Your task to perform on an android device: turn off wifi Image 0: 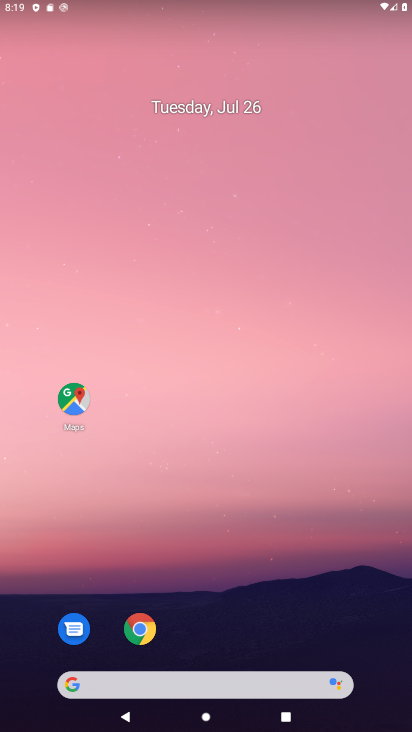
Step 0: drag from (236, 663) to (78, 177)
Your task to perform on an android device: turn off wifi Image 1: 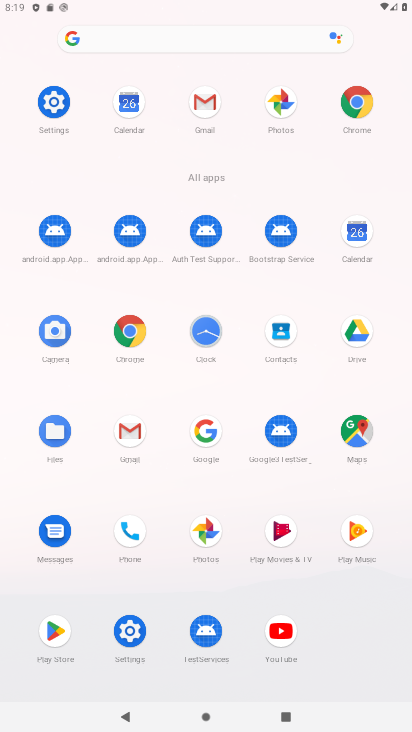
Step 1: click (57, 102)
Your task to perform on an android device: turn off wifi Image 2: 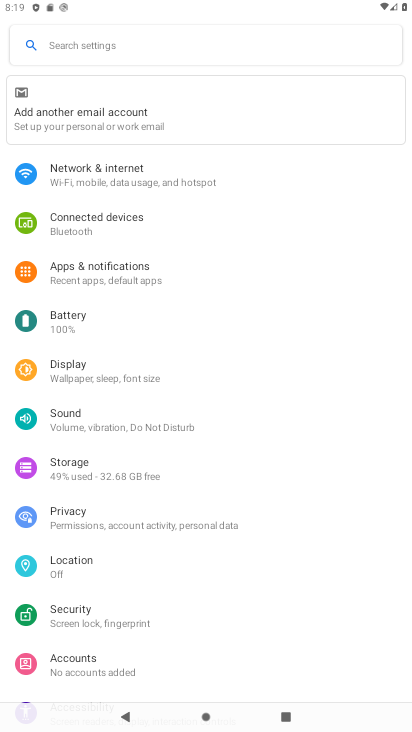
Step 2: click (81, 185)
Your task to perform on an android device: turn off wifi Image 3: 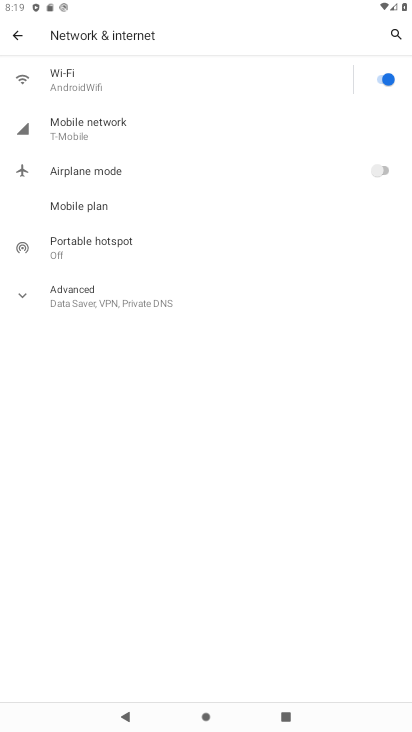
Step 3: click (388, 77)
Your task to perform on an android device: turn off wifi Image 4: 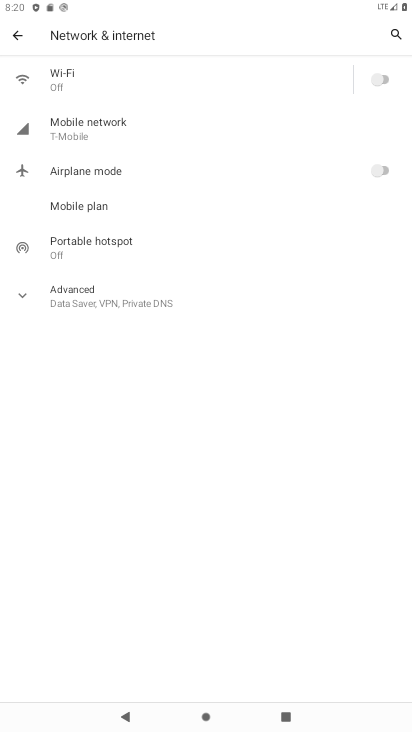
Step 4: task complete